Your task to perform on an android device: toggle translation in the chrome app Image 0: 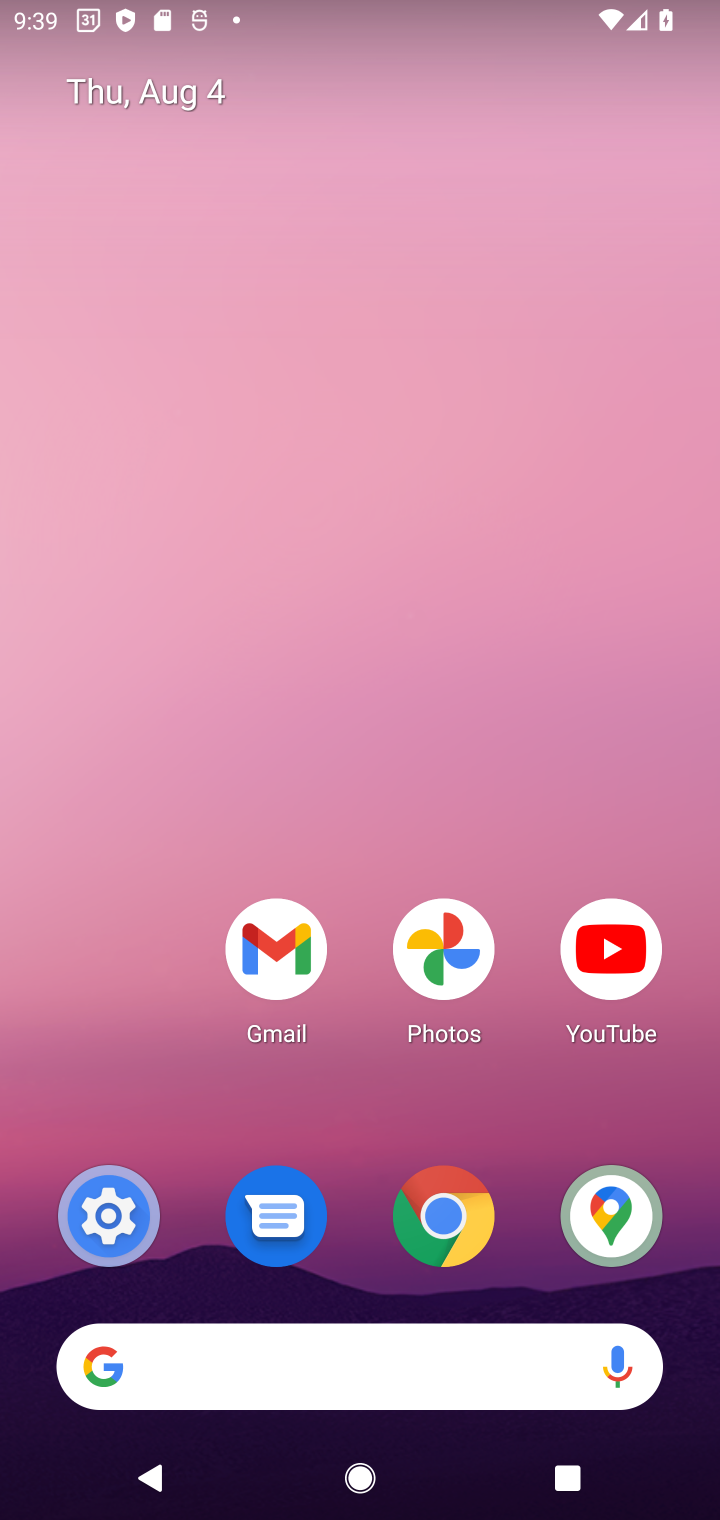
Step 0: click (440, 1218)
Your task to perform on an android device: toggle translation in the chrome app Image 1: 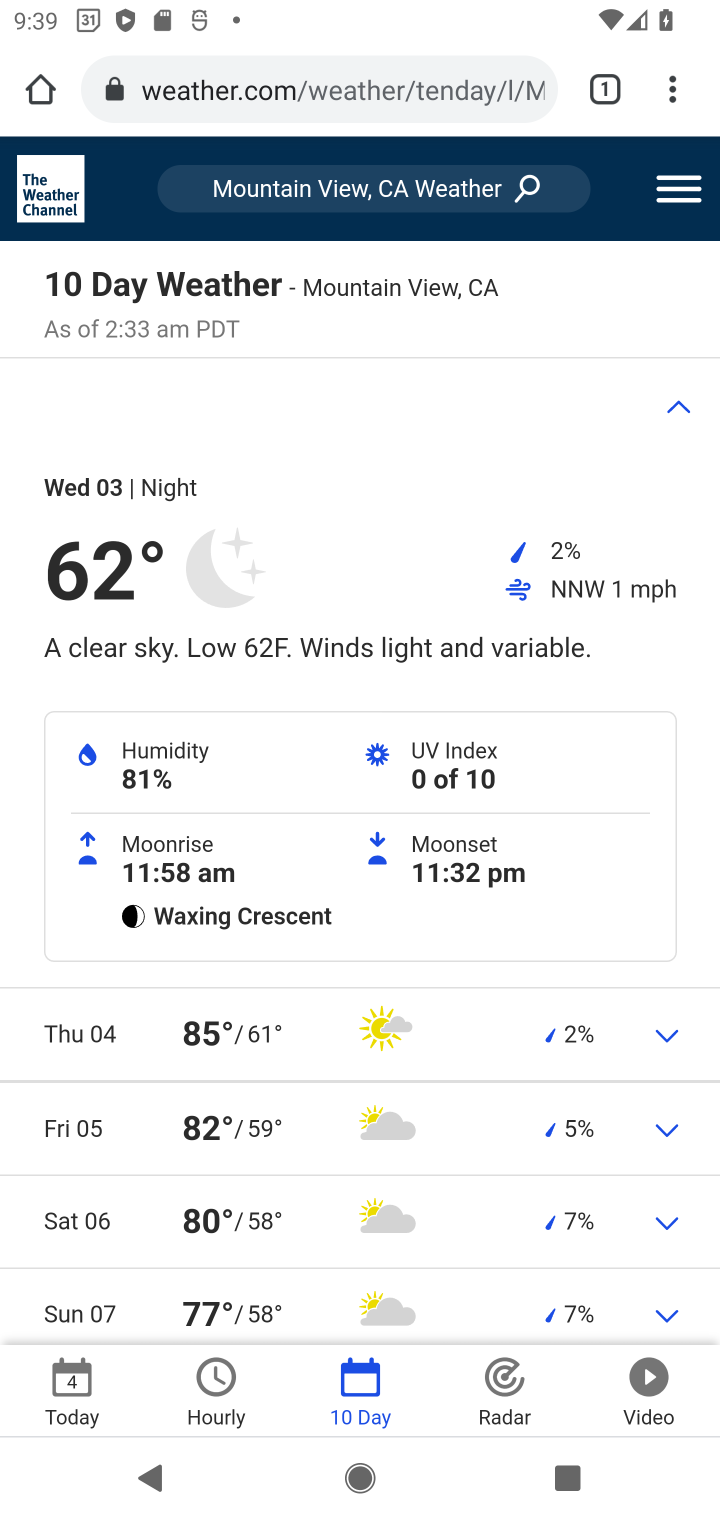
Step 1: click (668, 92)
Your task to perform on an android device: toggle translation in the chrome app Image 2: 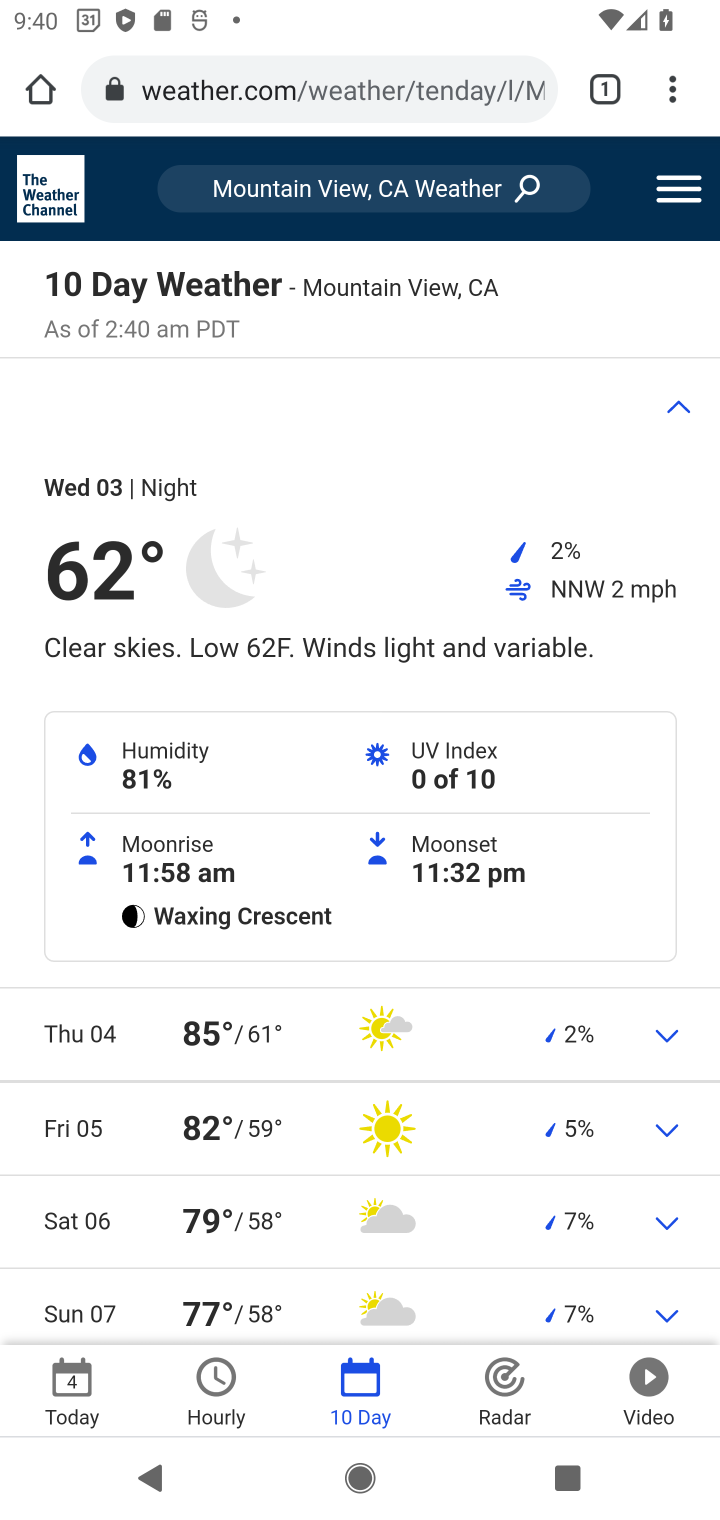
Step 2: click (672, 92)
Your task to perform on an android device: toggle translation in the chrome app Image 3: 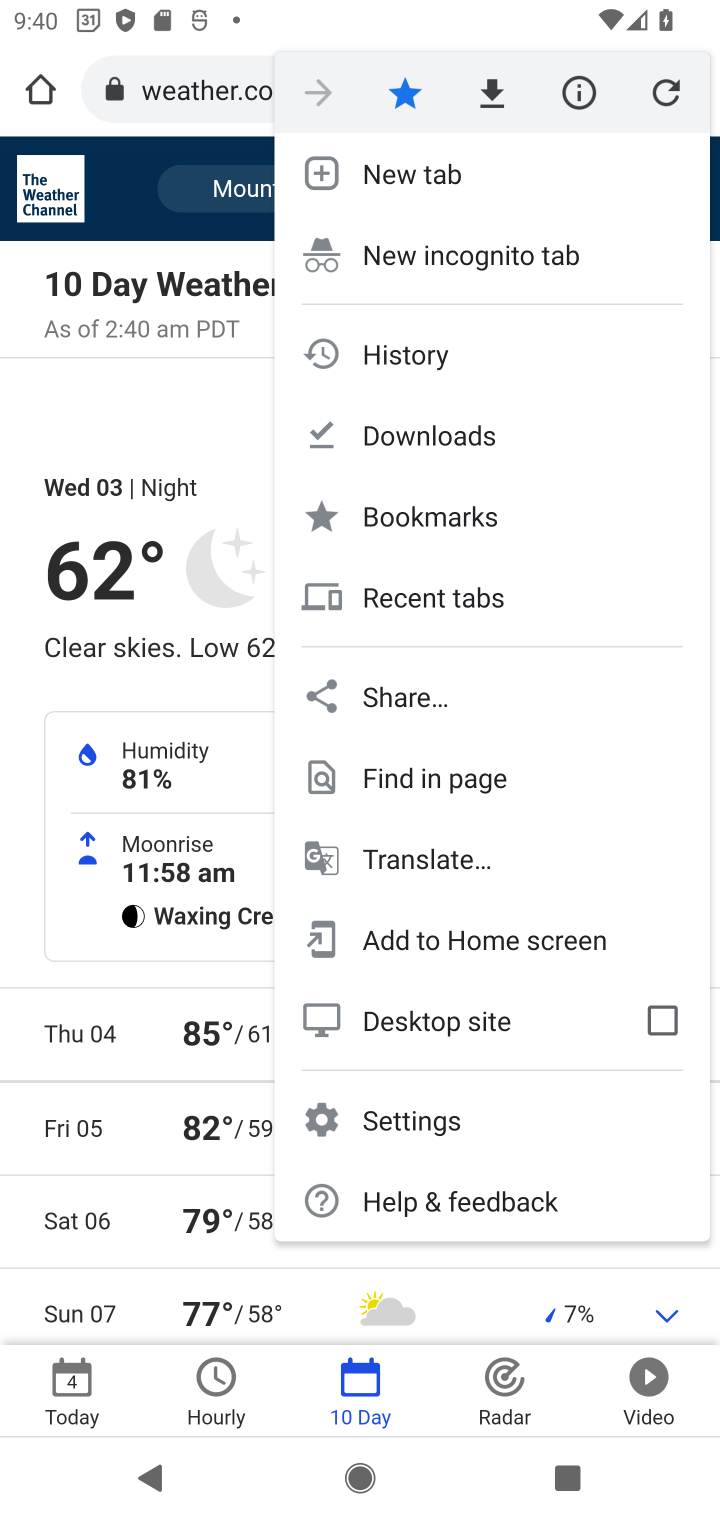
Step 3: click (409, 1119)
Your task to perform on an android device: toggle translation in the chrome app Image 4: 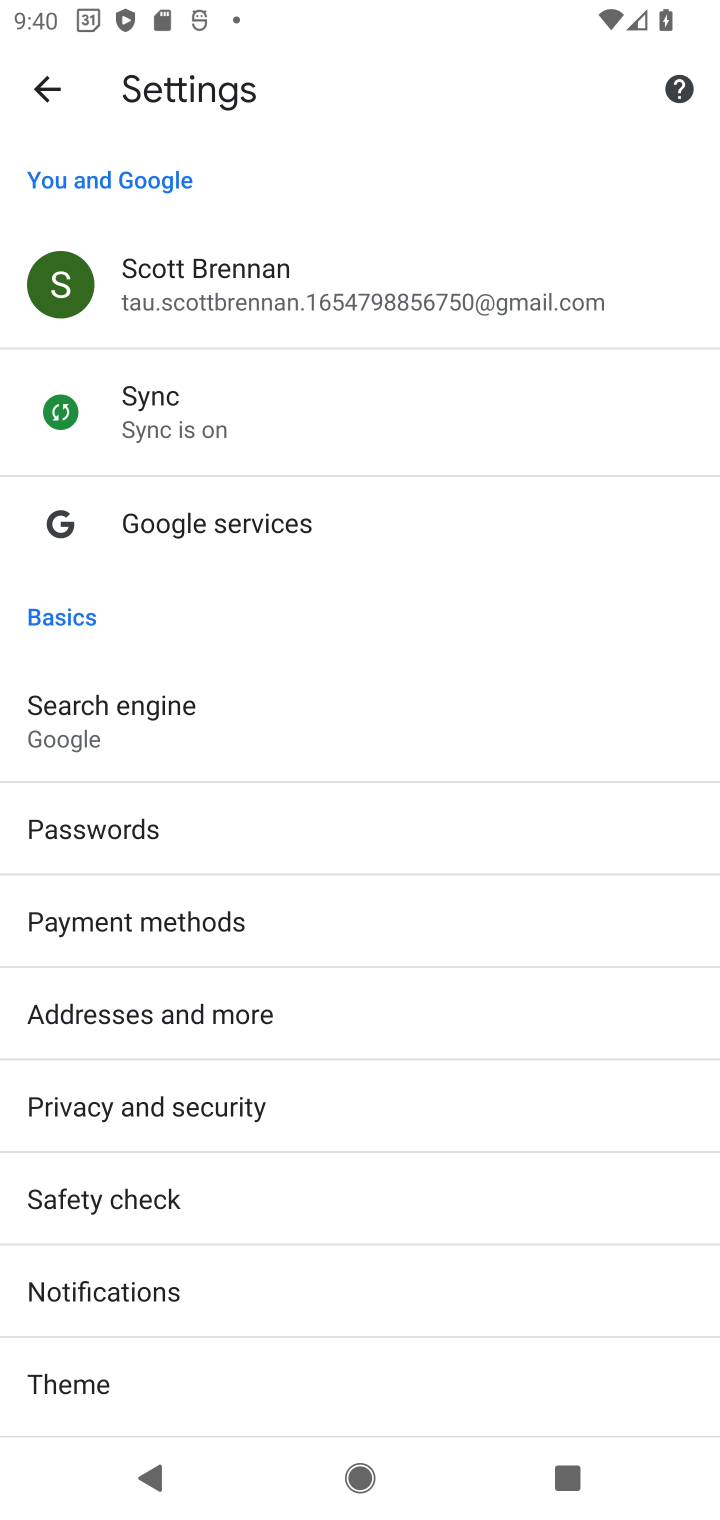
Step 4: drag from (167, 964) to (267, 800)
Your task to perform on an android device: toggle translation in the chrome app Image 5: 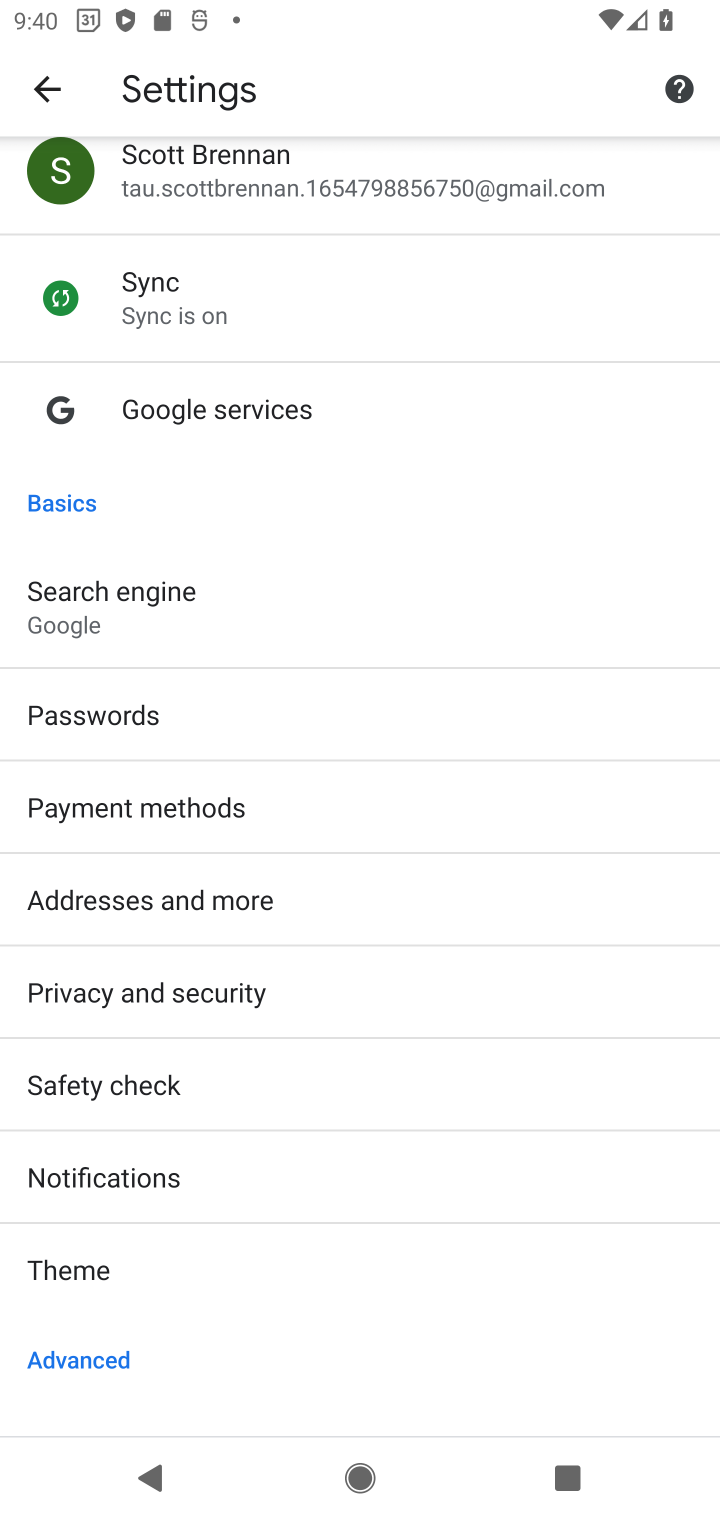
Step 5: drag from (196, 1156) to (351, 964)
Your task to perform on an android device: toggle translation in the chrome app Image 6: 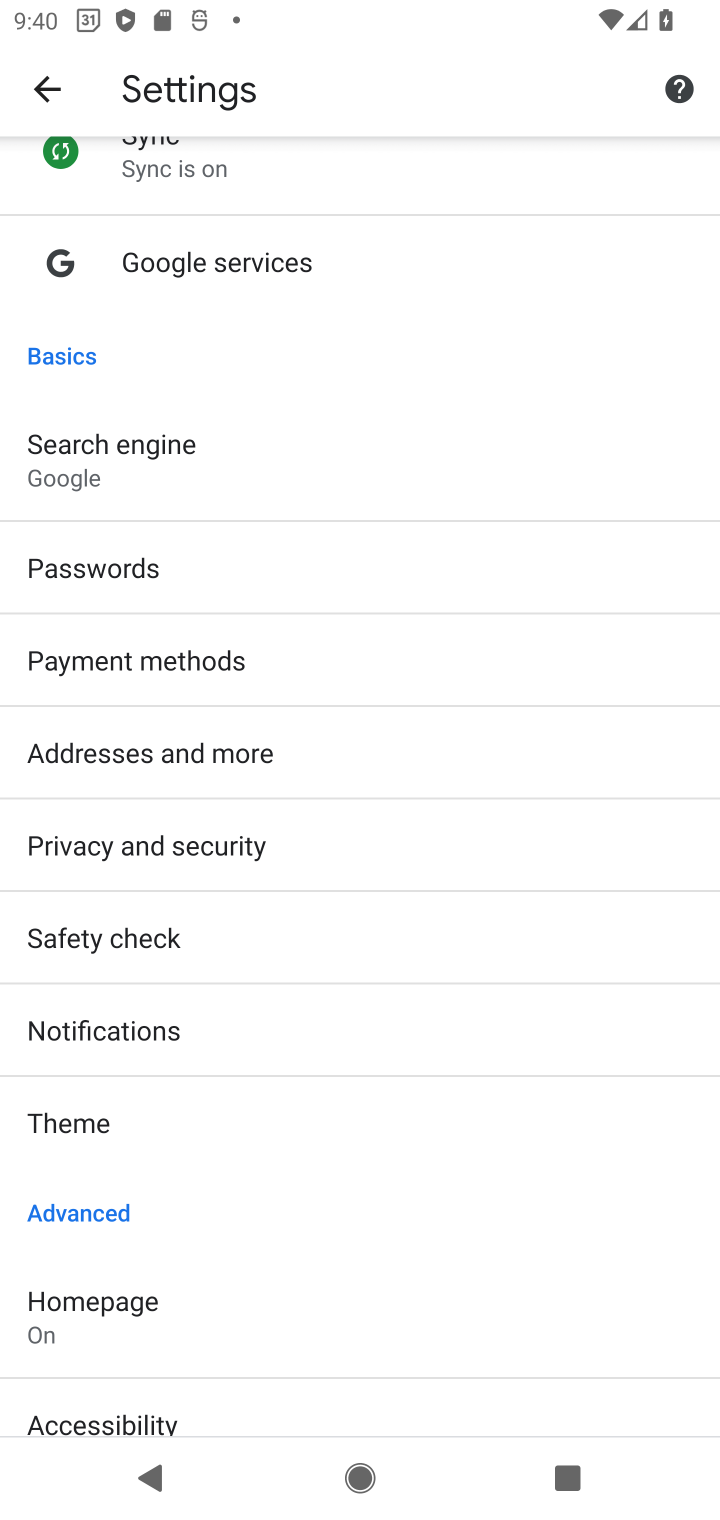
Step 6: drag from (265, 1310) to (294, 660)
Your task to perform on an android device: toggle translation in the chrome app Image 7: 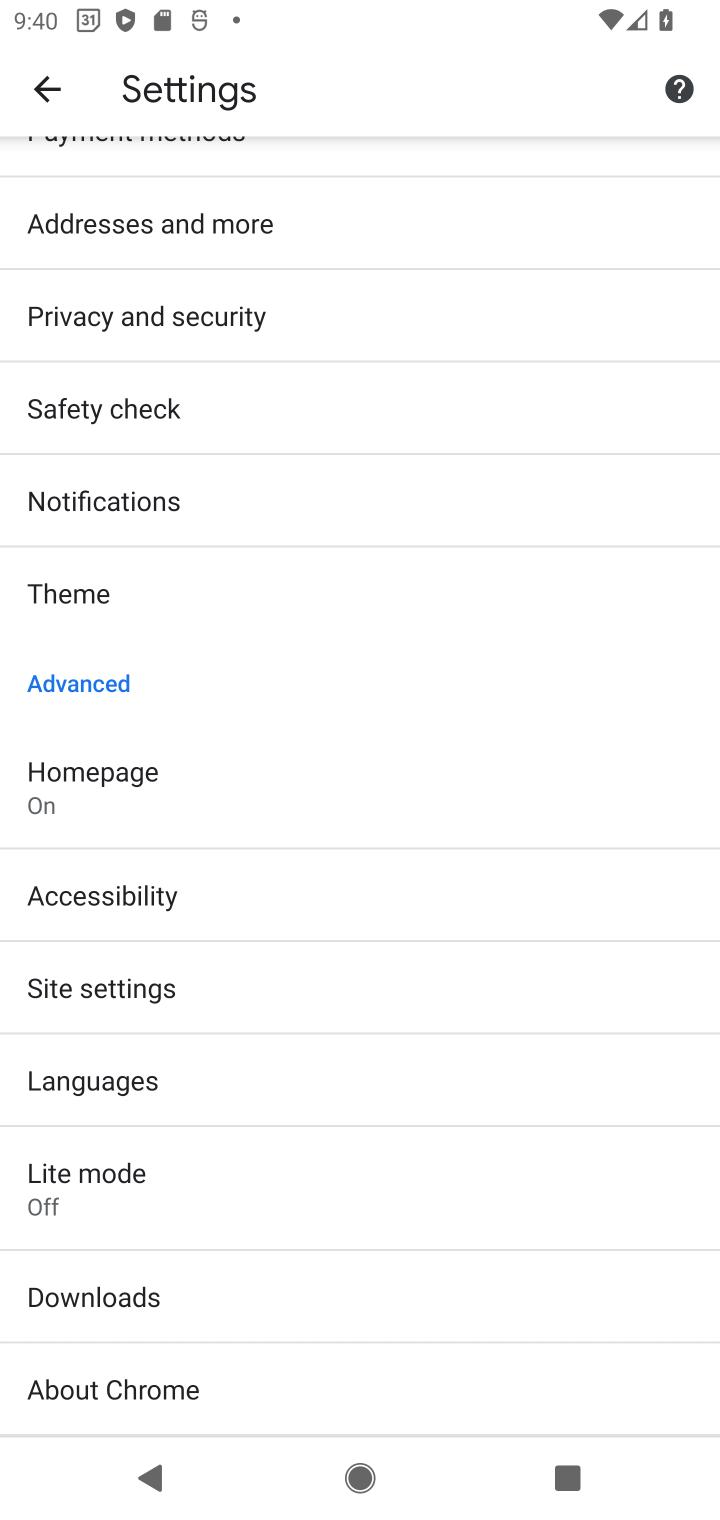
Step 7: click (140, 1094)
Your task to perform on an android device: toggle translation in the chrome app Image 8: 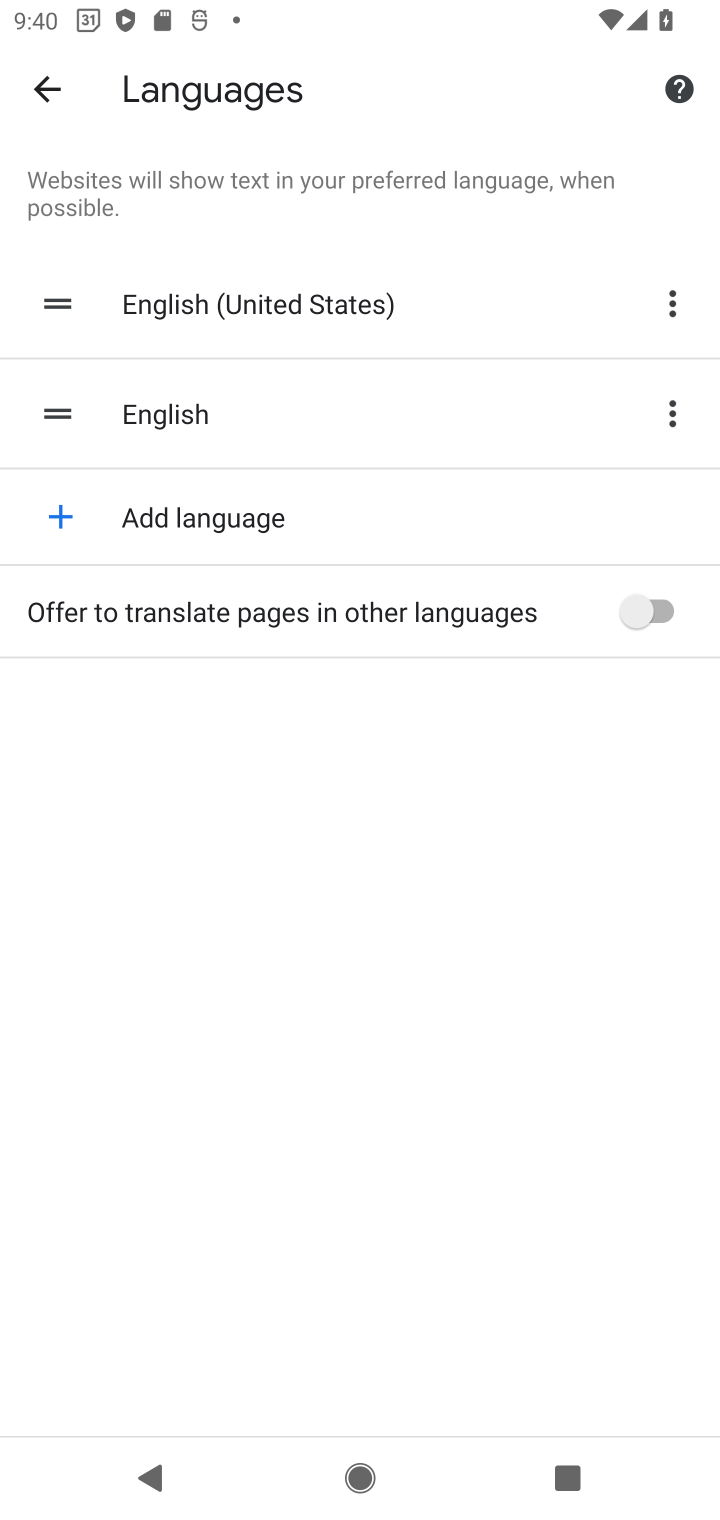
Step 8: click (630, 610)
Your task to perform on an android device: toggle translation in the chrome app Image 9: 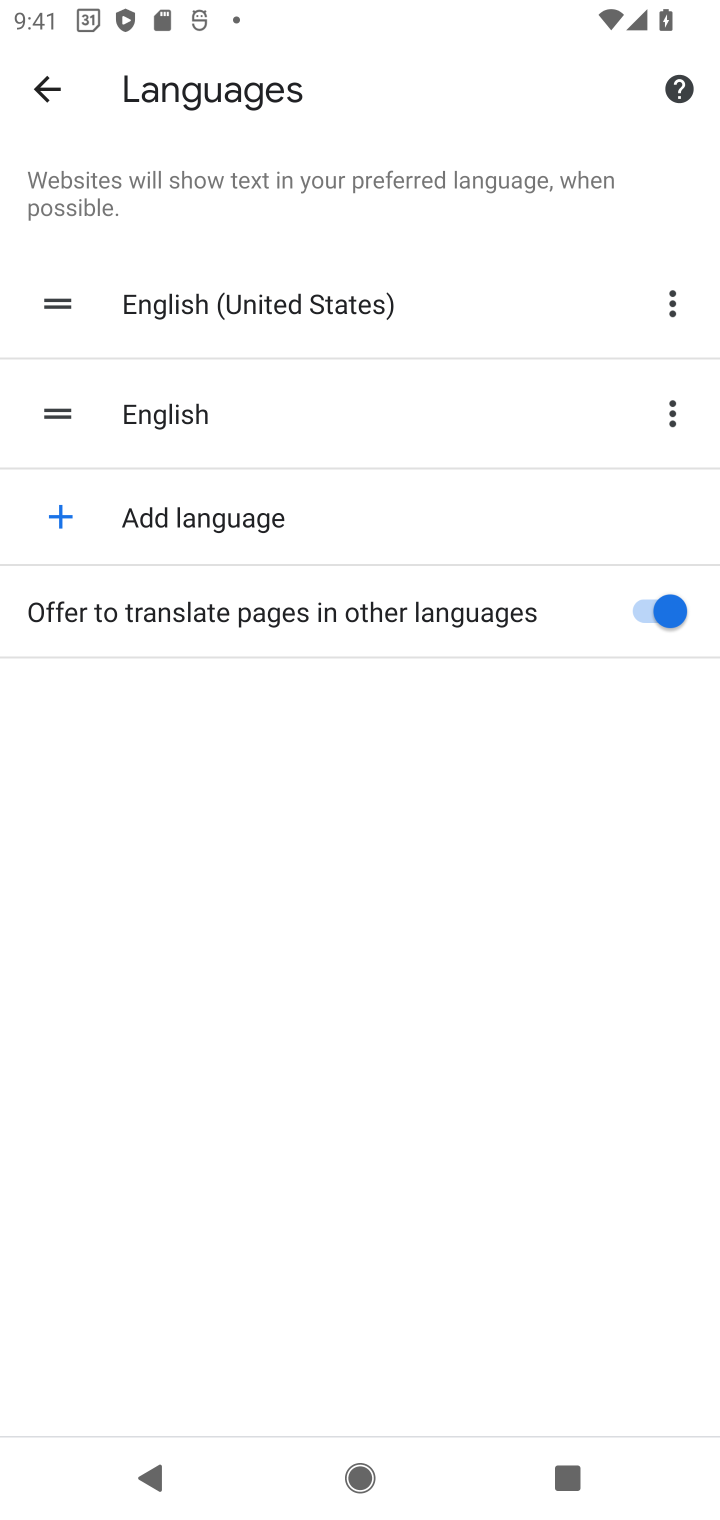
Step 9: task complete